Your task to perform on an android device: Show me productivity apps on the Play Store Image 0: 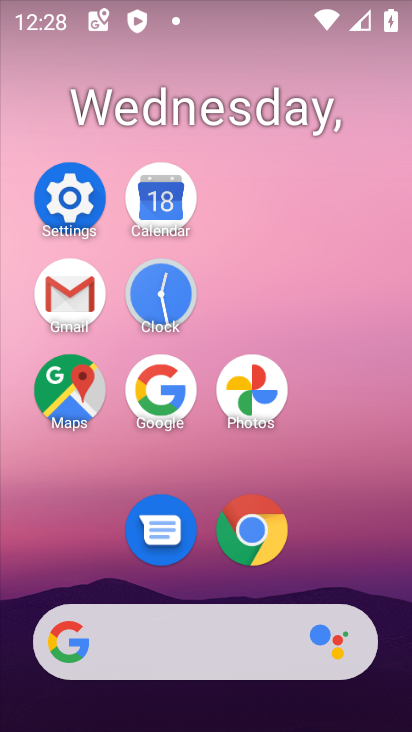
Step 0: press home button
Your task to perform on an android device: Show me productivity apps on the Play Store Image 1: 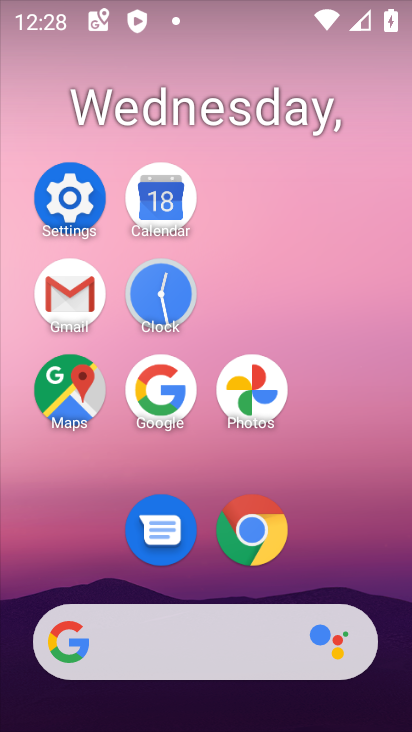
Step 1: drag from (295, 570) to (306, 141)
Your task to perform on an android device: Show me productivity apps on the Play Store Image 2: 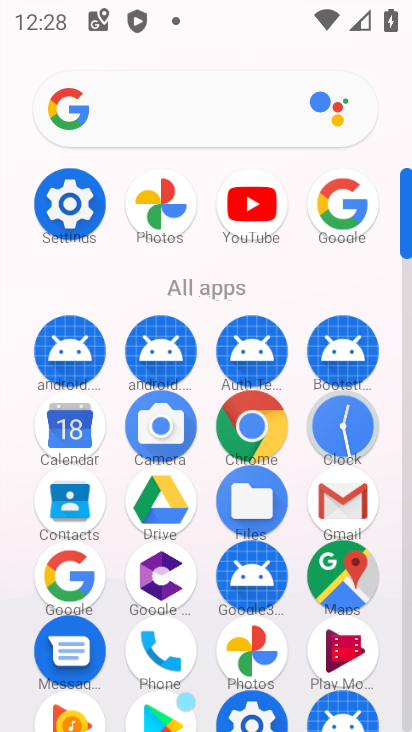
Step 2: drag from (213, 600) to (234, 245)
Your task to perform on an android device: Show me productivity apps on the Play Store Image 3: 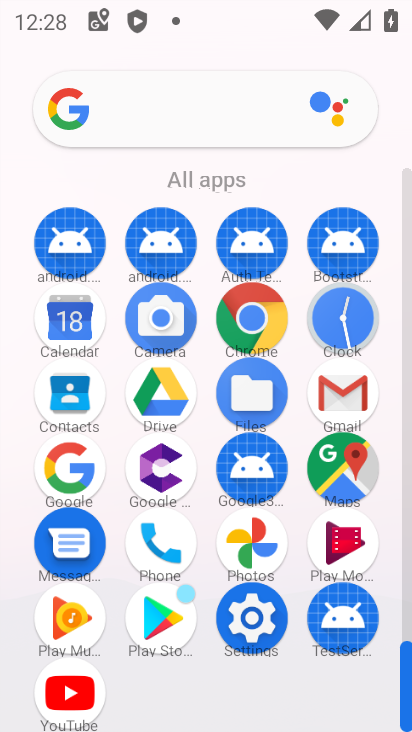
Step 3: click (168, 628)
Your task to perform on an android device: Show me productivity apps on the Play Store Image 4: 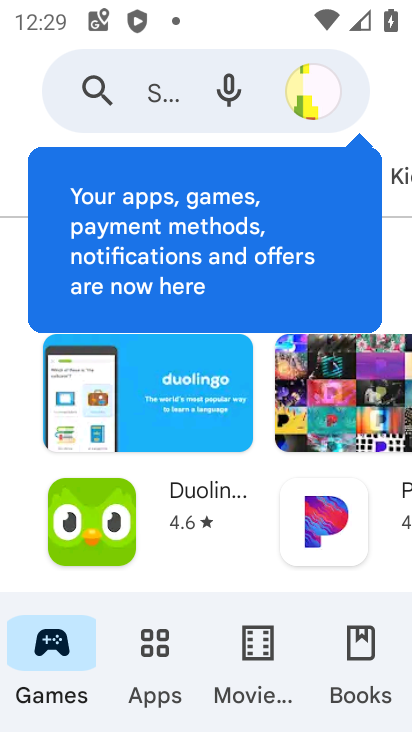
Step 4: click (177, 639)
Your task to perform on an android device: Show me productivity apps on the Play Store Image 5: 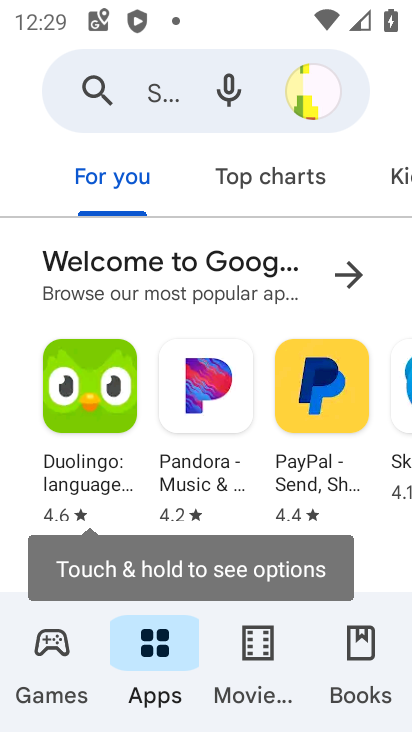
Step 5: drag from (297, 176) to (39, 111)
Your task to perform on an android device: Show me productivity apps on the Play Store Image 6: 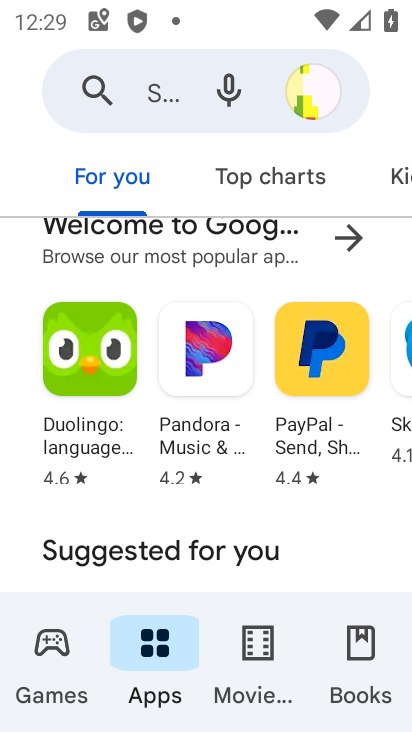
Step 6: drag from (346, 168) to (84, 138)
Your task to perform on an android device: Show me productivity apps on the Play Store Image 7: 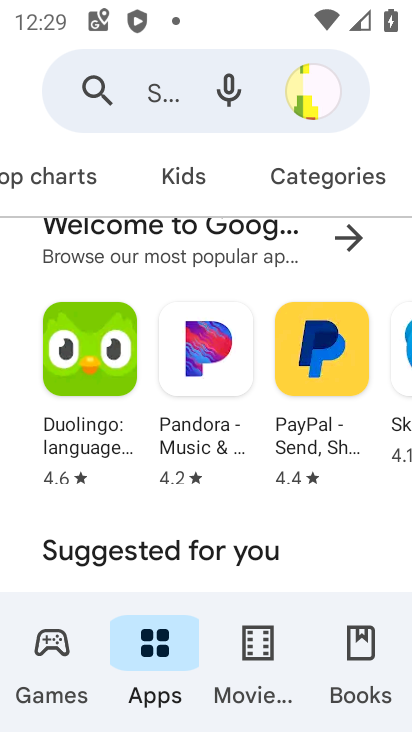
Step 7: click (360, 186)
Your task to perform on an android device: Show me productivity apps on the Play Store Image 8: 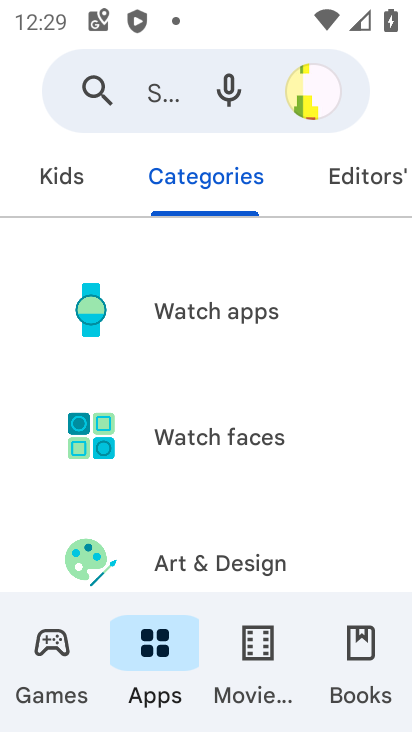
Step 8: drag from (262, 518) to (210, 141)
Your task to perform on an android device: Show me productivity apps on the Play Store Image 9: 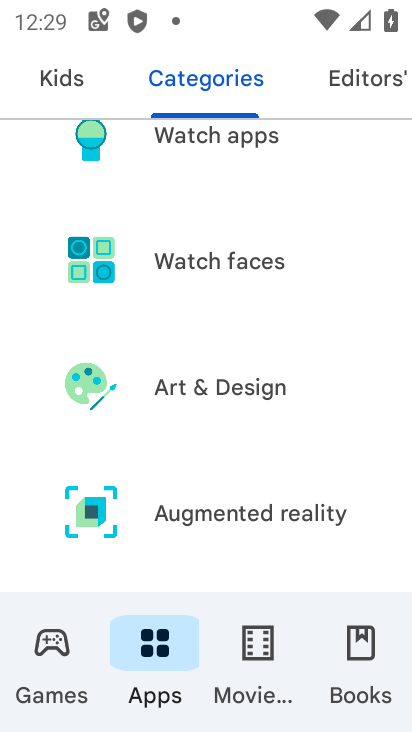
Step 9: drag from (242, 459) to (191, 62)
Your task to perform on an android device: Show me productivity apps on the Play Store Image 10: 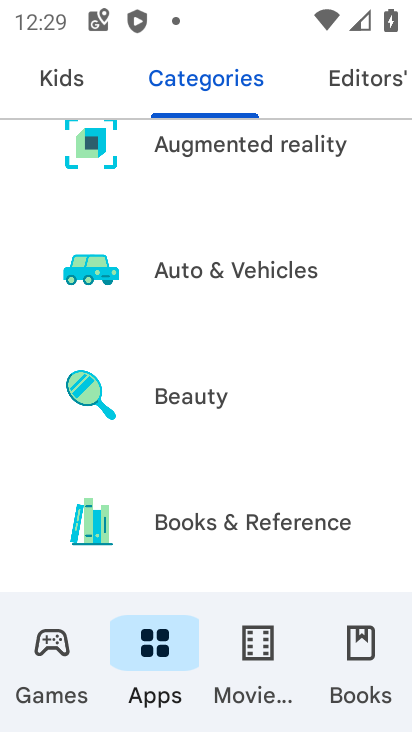
Step 10: drag from (282, 465) to (238, 94)
Your task to perform on an android device: Show me productivity apps on the Play Store Image 11: 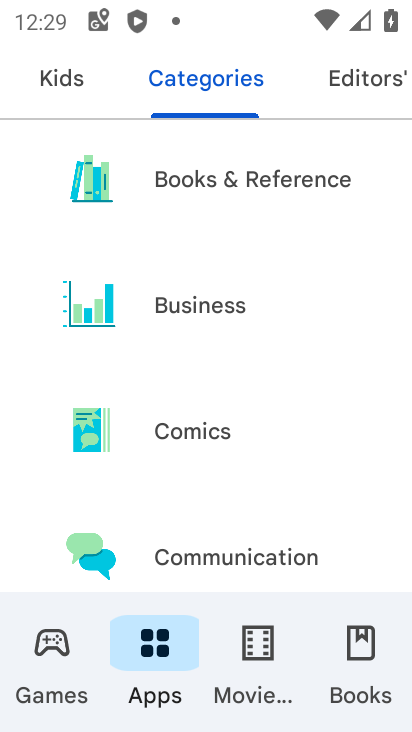
Step 11: drag from (282, 449) to (237, 76)
Your task to perform on an android device: Show me productivity apps on the Play Store Image 12: 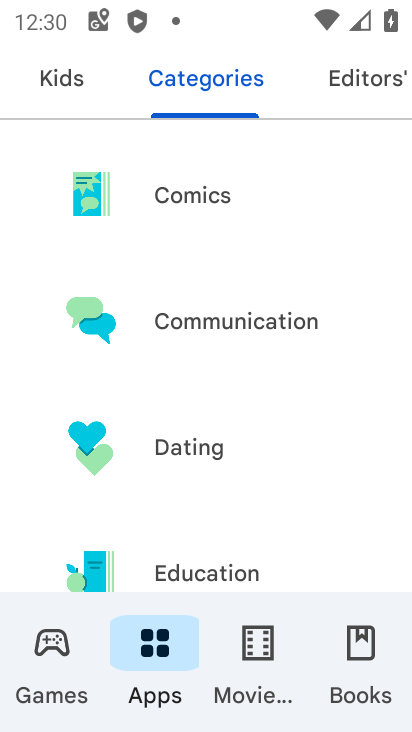
Step 12: drag from (221, 490) to (164, 93)
Your task to perform on an android device: Show me productivity apps on the Play Store Image 13: 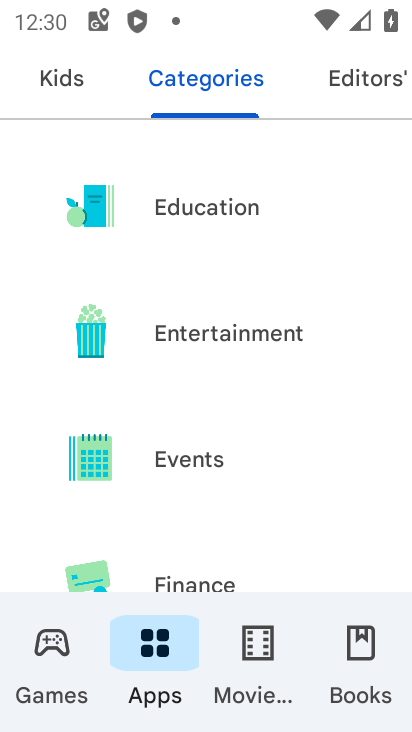
Step 13: drag from (230, 494) to (208, 105)
Your task to perform on an android device: Show me productivity apps on the Play Store Image 14: 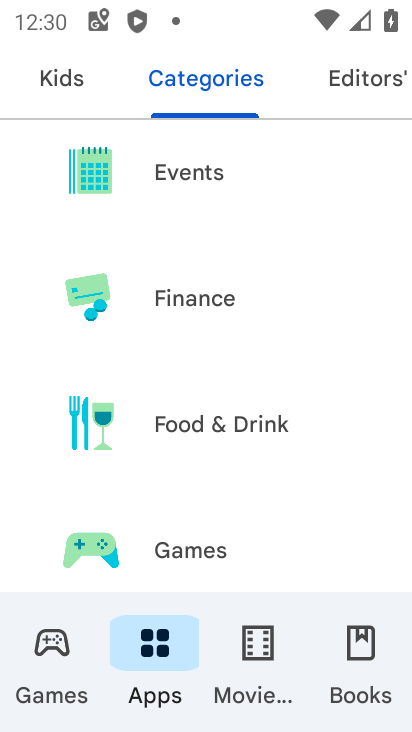
Step 14: drag from (270, 534) to (236, 149)
Your task to perform on an android device: Show me productivity apps on the Play Store Image 15: 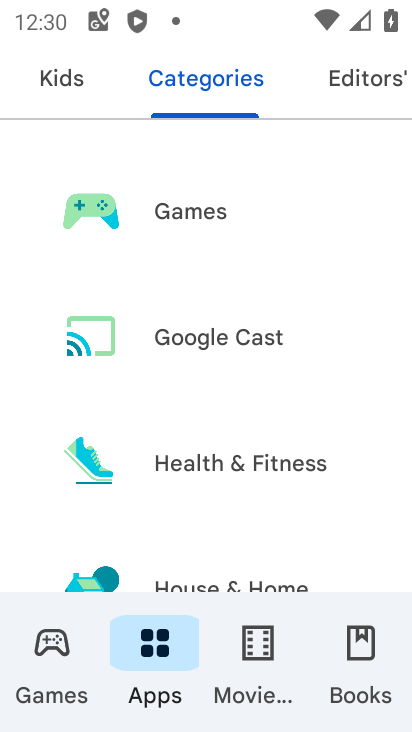
Step 15: drag from (268, 381) to (230, 159)
Your task to perform on an android device: Show me productivity apps on the Play Store Image 16: 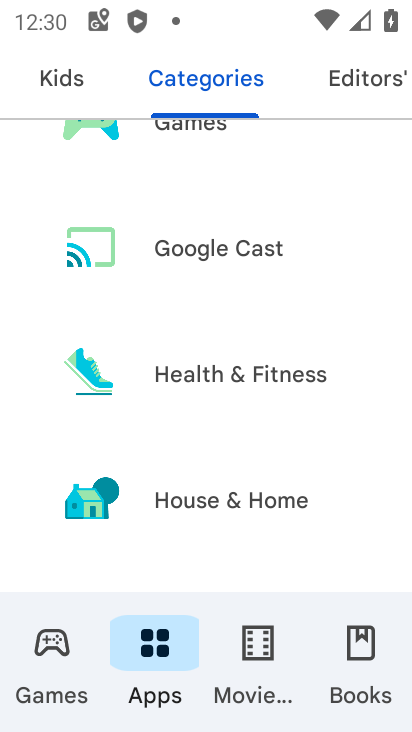
Step 16: drag from (283, 450) to (254, 154)
Your task to perform on an android device: Show me productivity apps on the Play Store Image 17: 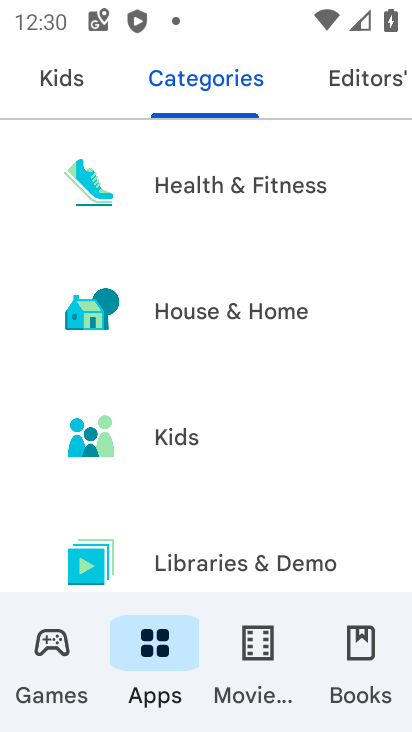
Step 17: drag from (288, 456) to (239, 169)
Your task to perform on an android device: Show me productivity apps on the Play Store Image 18: 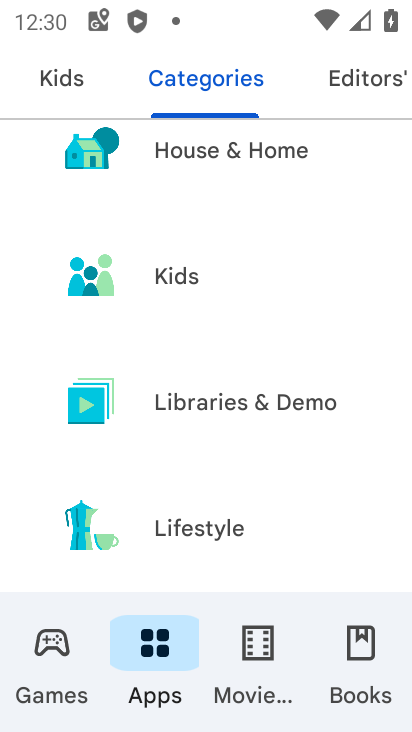
Step 18: drag from (276, 477) to (249, 156)
Your task to perform on an android device: Show me productivity apps on the Play Store Image 19: 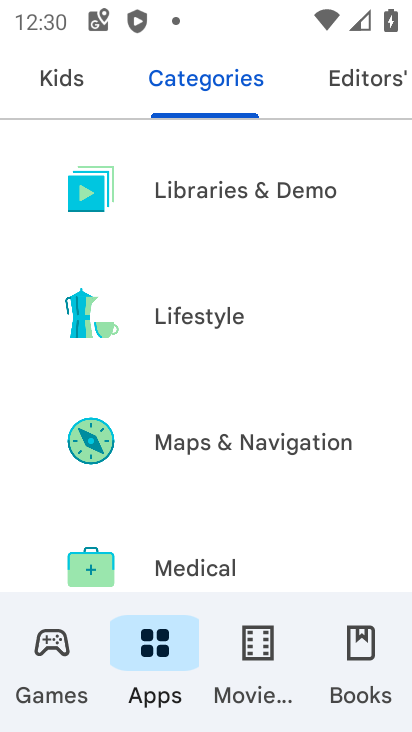
Step 19: drag from (292, 502) to (255, 184)
Your task to perform on an android device: Show me productivity apps on the Play Store Image 20: 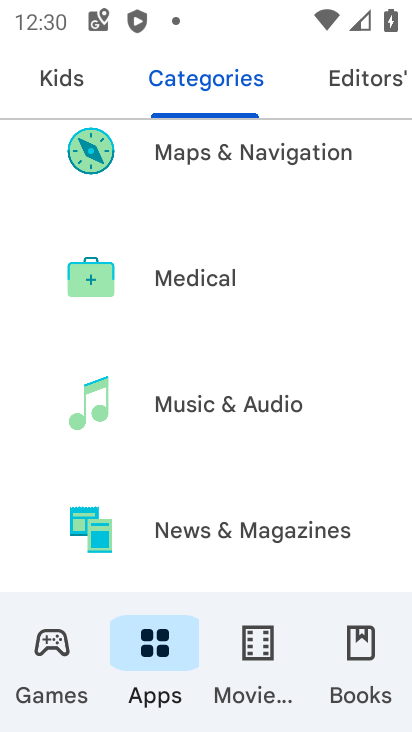
Step 20: drag from (304, 459) to (290, 178)
Your task to perform on an android device: Show me productivity apps on the Play Store Image 21: 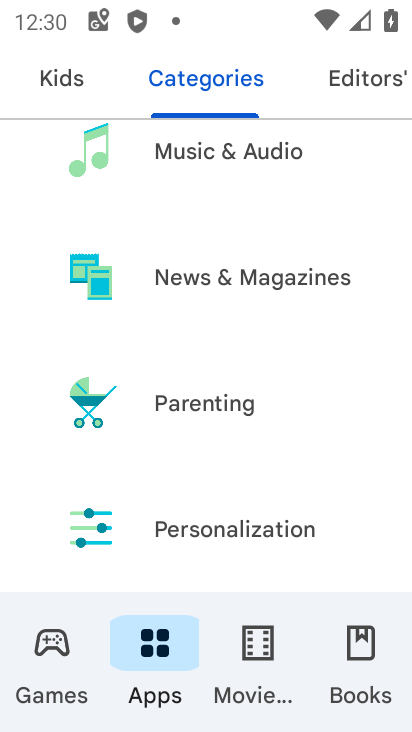
Step 21: drag from (296, 446) to (261, 184)
Your task to perform on an android device: Show me productivity apps on the Play Store Image 22: 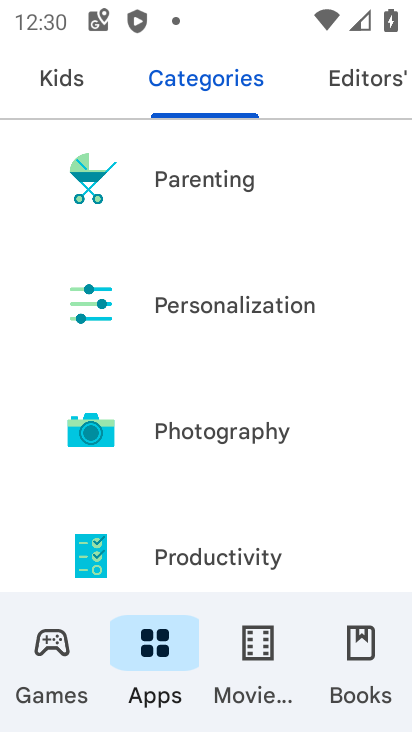
Step 22: drag from (260, 488) to (209, 201)
Your task to perform on an android device: Show me productivity apps on the Play Store Image 23: 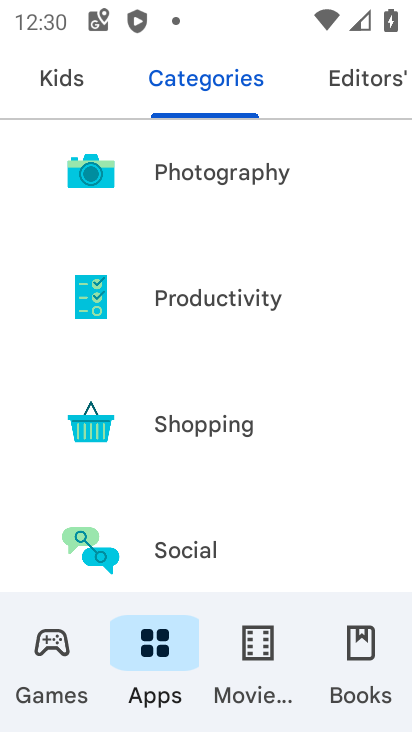
Step 23: click (236, 297)
Your task to perform on an android device: Show me productivity apps on the Play Store Image 24: 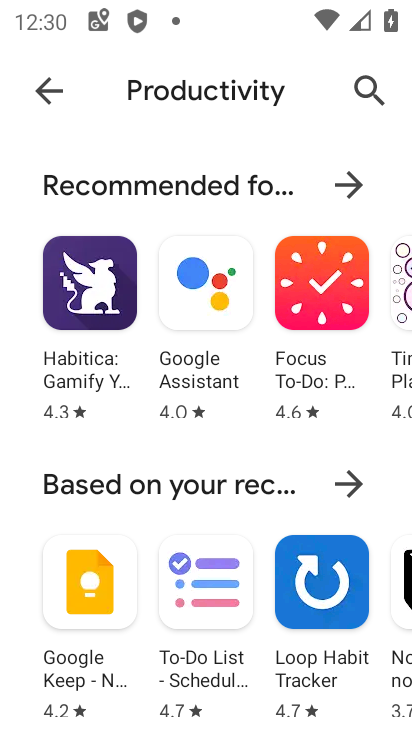
Step 24: task complete